Your task to perform on an android device: turn off location history Image 0: 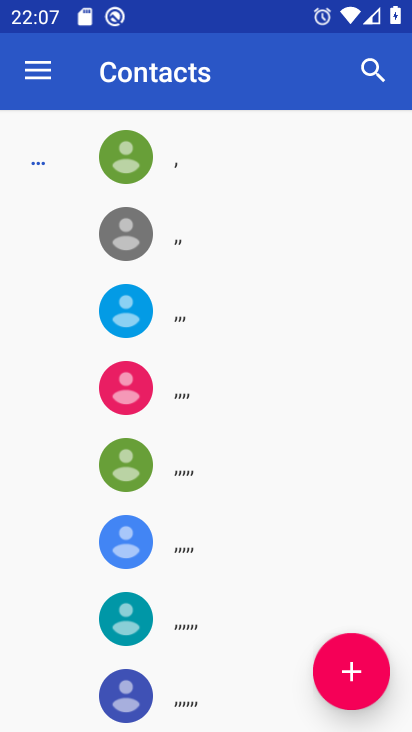
Step 0: press home button
Your task to perform on an android device: turn off location history Image 1: 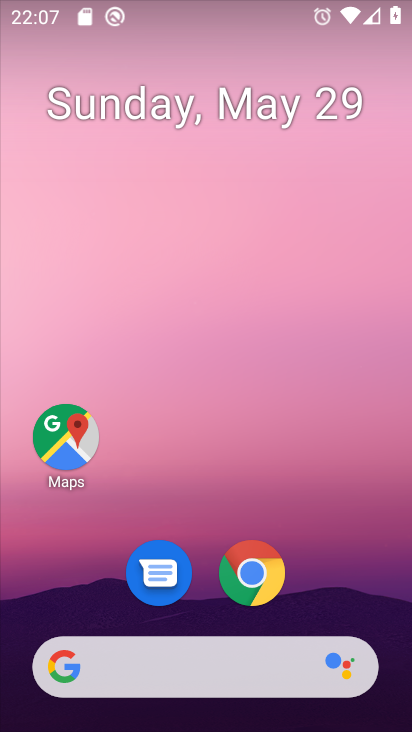
Step 1: drag from (219, 381) to (249, 65)
Your task to perform on an android device: turn off location history Image 2: 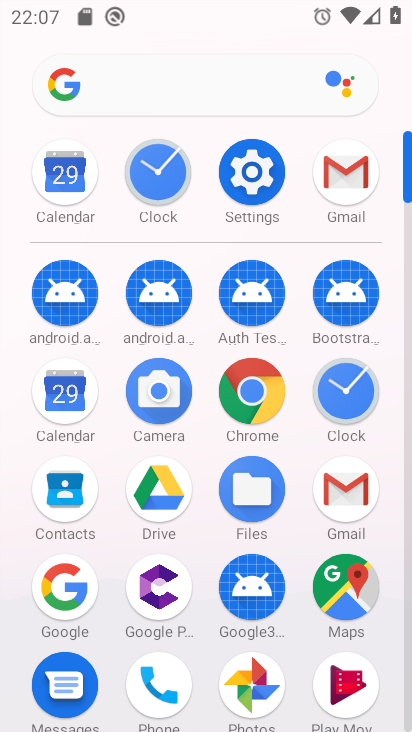
Step 2: click (257, 155)
Your task to perform on an android device: turn off location history Image 3: 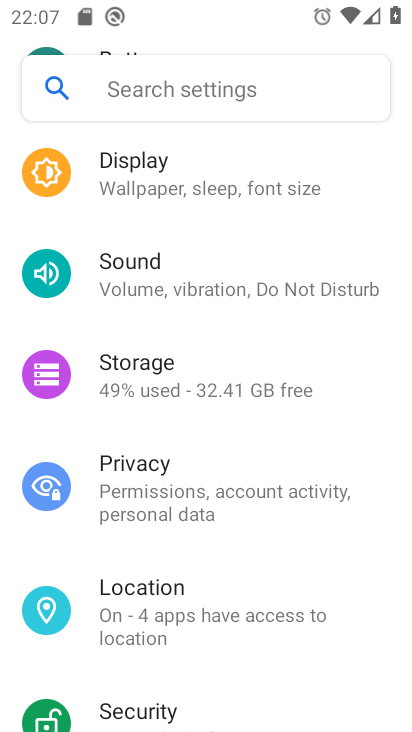
Step 3: click (212, 599)
Your task to perform on an android device: turn off location history Image 4: 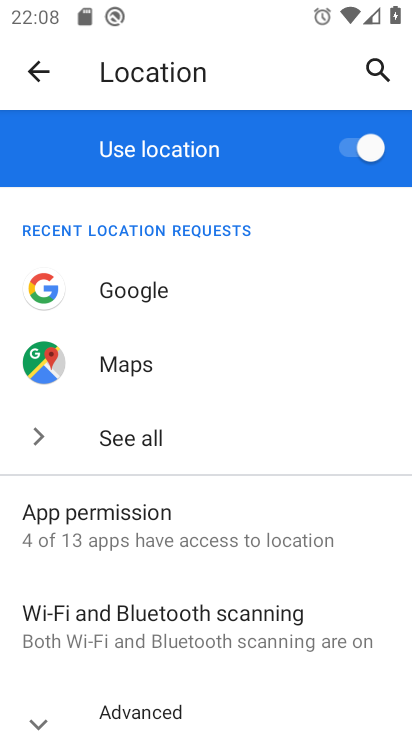
Step 4: drag from (229, 566) to (250, 310)
Your task to perform on an android device: turn off location history Image 5: 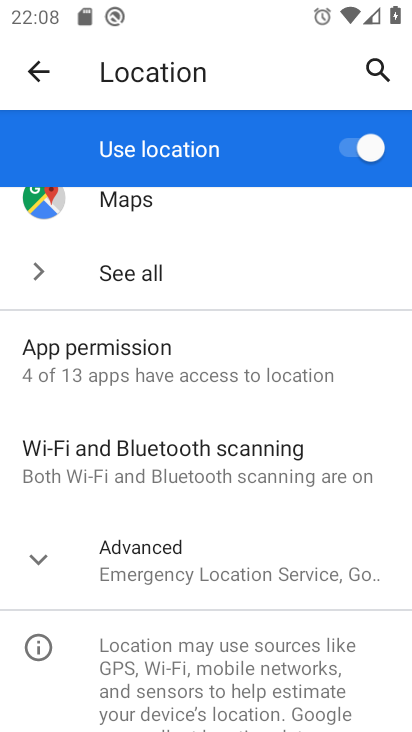
Step 5: click (40, 552)
Your task to perform on an android device: turn off location history Image 6: 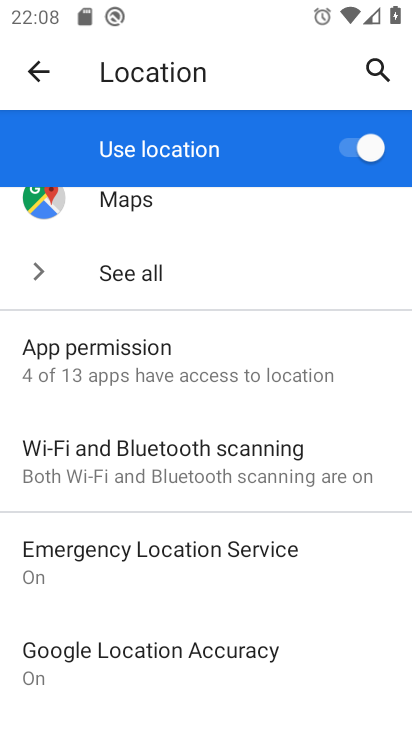
Step 6: drag from (204, 599) to (263, 361)
Your task to perform on an android device: turn off location history Image 7: 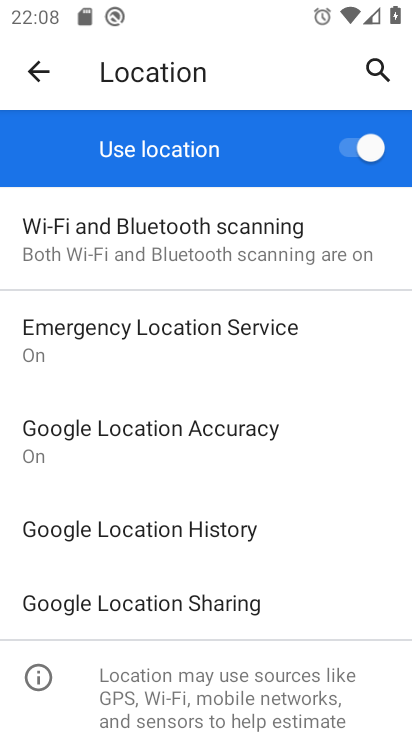
Step 7: click (208, 531)
Your task to perform on an android device: turn off location history Image 8: 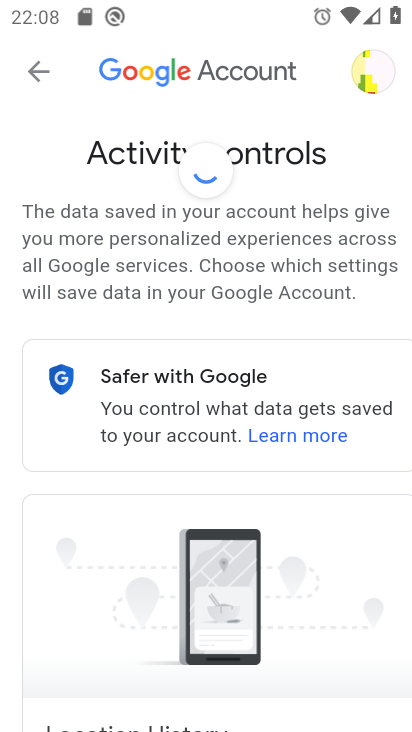
Step 8: drag from (275, 478) to (309, 152)
Your task to perform on an android device: turn off location history Image 9: 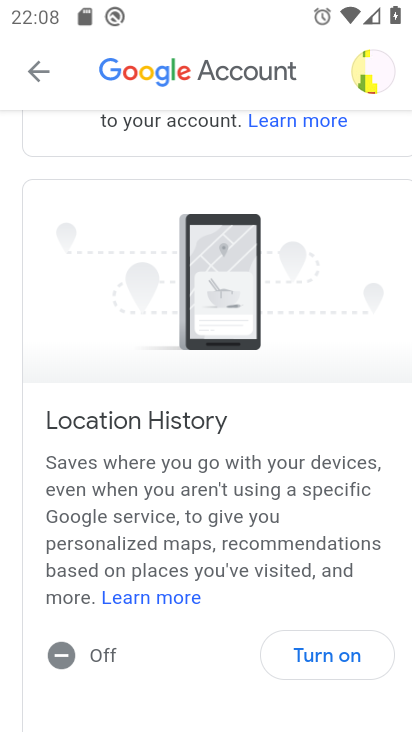
Step 9: click (310, 647)
Your task to perform on an android device: turn off location history Image 10: 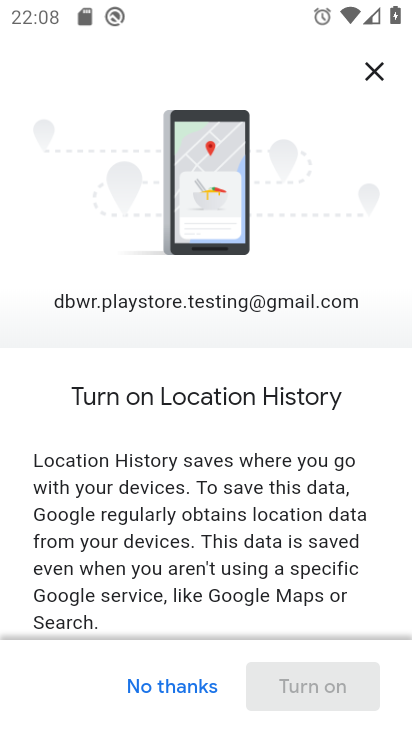
Step 10: drag from (259, 544) to (276, 179)
Your task to perform on an android device: turn off location history Image 11: 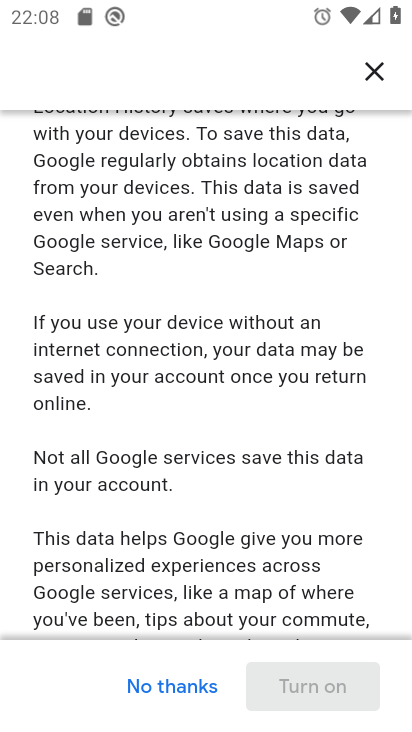
Step 11: drag from (240, 541) to (255, 172)
Your task to perform on an android device: turn off location history Image 12: 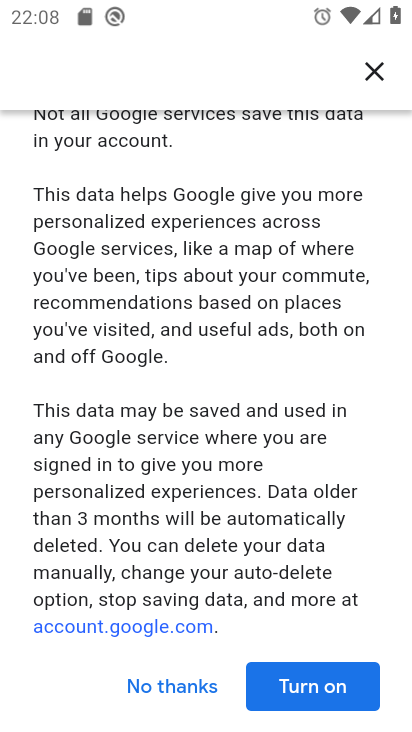
Step 12: click (312, 682)
Your task to perform on an android device: turn off location history Image 13: 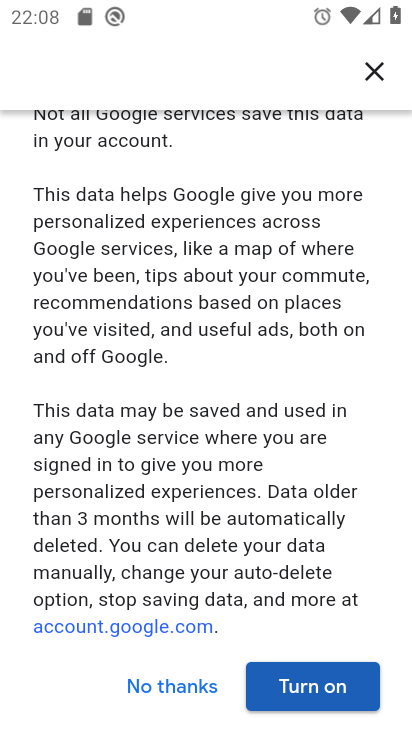
Step 13: click (343, 685)
Your task to perform on an android device: turn off location history Image 14: 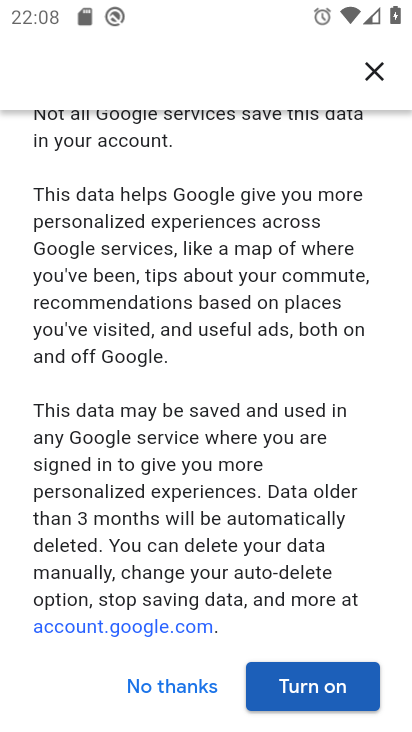
Step 14: click (343, 685)
Your task to perform on an android device: turn off location history Image 15: 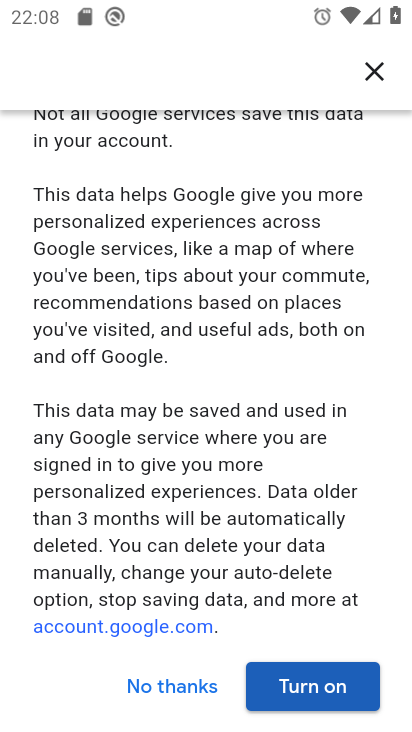
Step 15: click (333, 689)
Your task to perform on an android device: turn off location history Image 16: 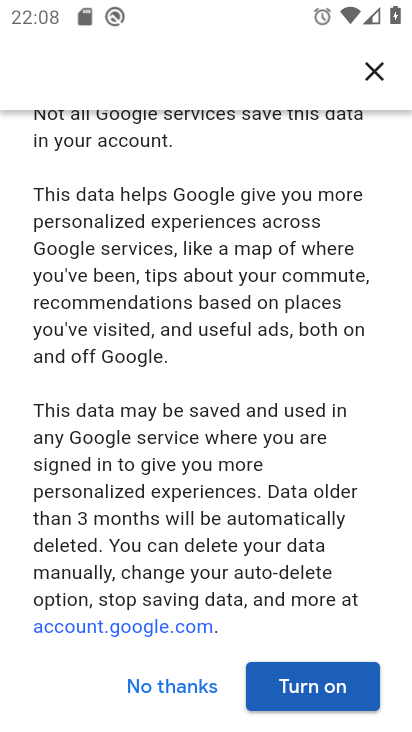
Step 16: click (333, 688)
Your task to perform on an android device: turn off location history Image 17: 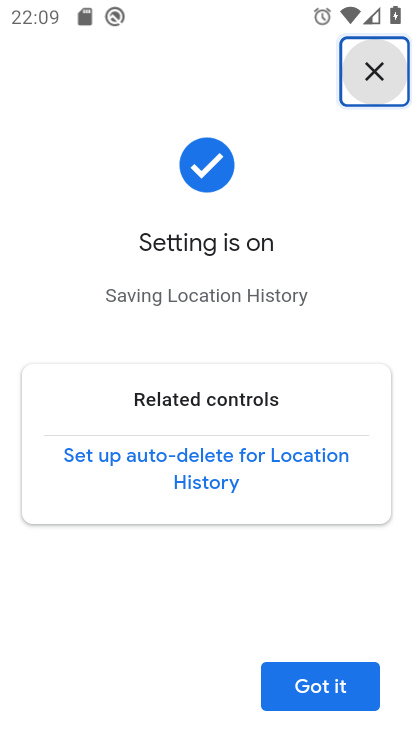
Step 17: click (333, 689)
Your task to perform on an android device: turn off location history Image 18: 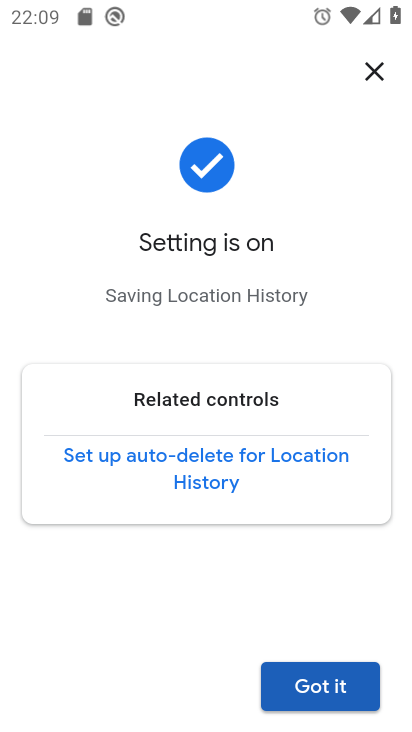
Step 18: click (333, 688)
Your task to perform on an android device: turn off location history Image 19: 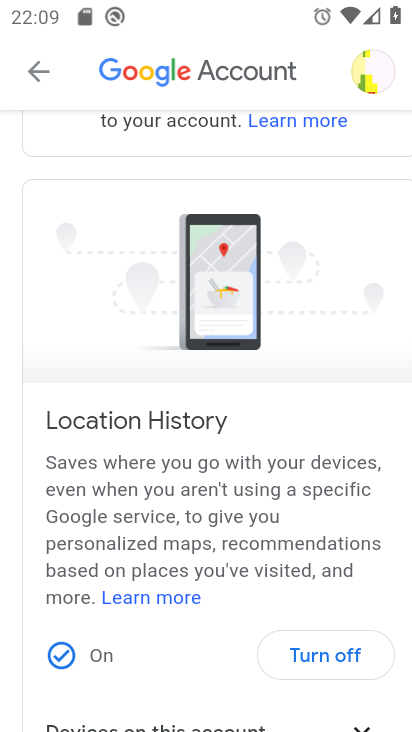
Step 19: task complete